Your task to perform on an android device: Open my contact list Image 0: 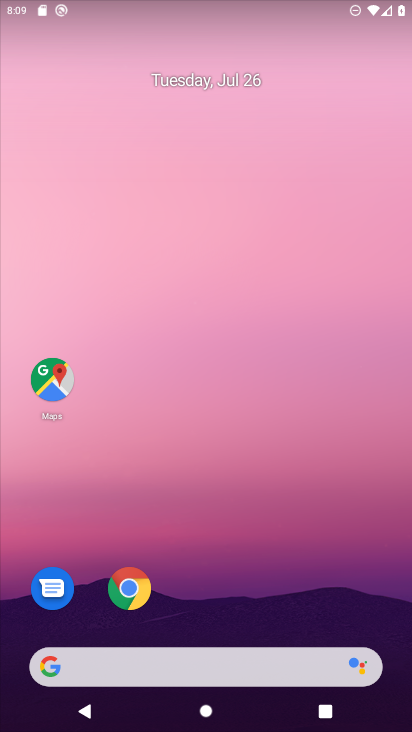
Step 0: drag from (263, 567) to (217, 305)
Your task to perform on an android device: Open my contact list Image 1: 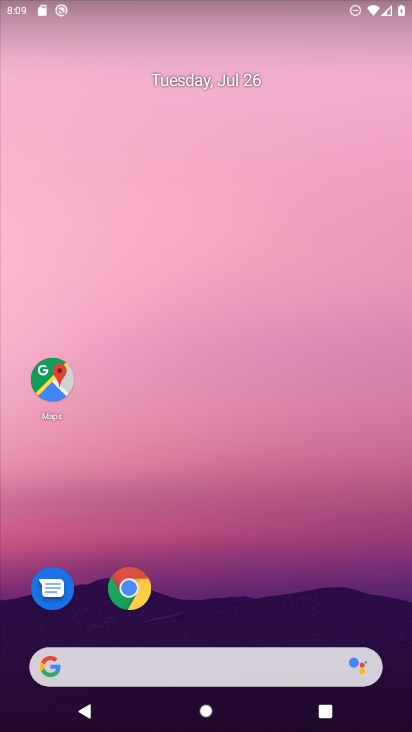
Step 1: drag from (161, 639) to (133, 127)
Your task to perform on an android device: Open my contact list Image 2: 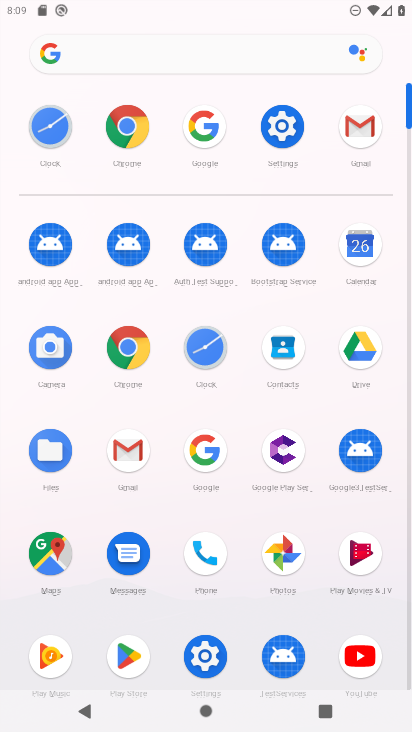
Step 2: click (276, 348)
Your task to perform on an android device: Open my contact list Image 3: 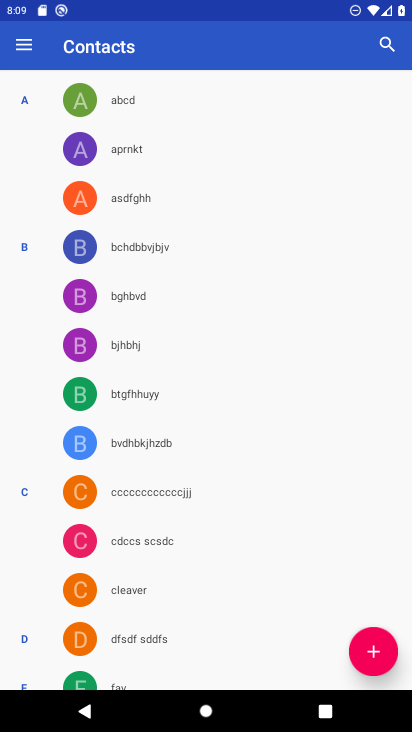
Step 3: task complete